Your task to perform on an android device: Open my contact list Image 0: 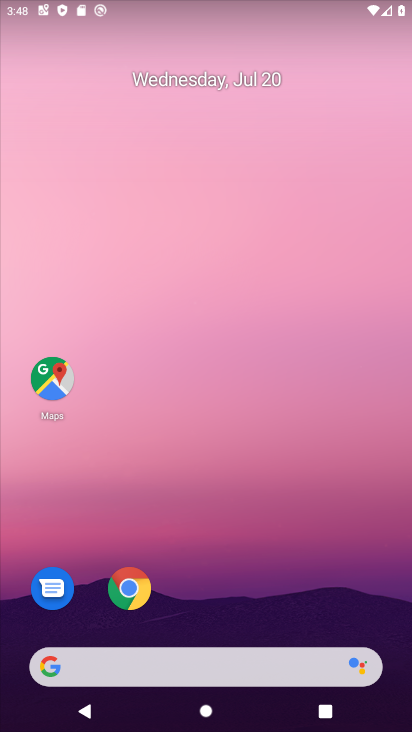
Step 0: drag from (284, 501) to (265, 22)
Your task to perform on an android device: Open my contact list Image 1: 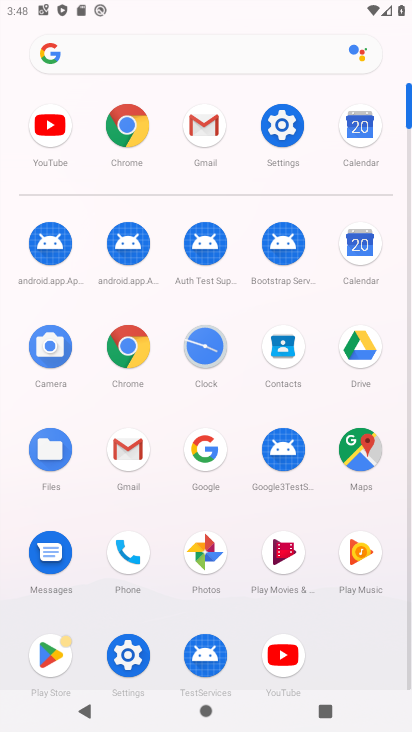
Step 1: click (285, 345)
Your task to perform on an android device: Open my contact list Image 2: 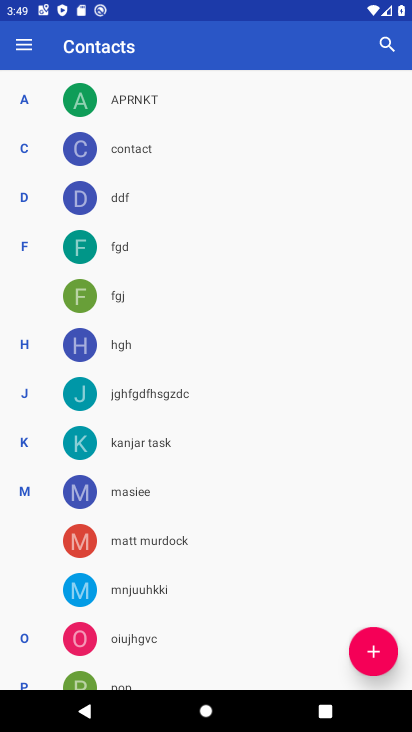
Step 2: task complete